Your task to perform on an android device: Toggle the flashlight Image 0: 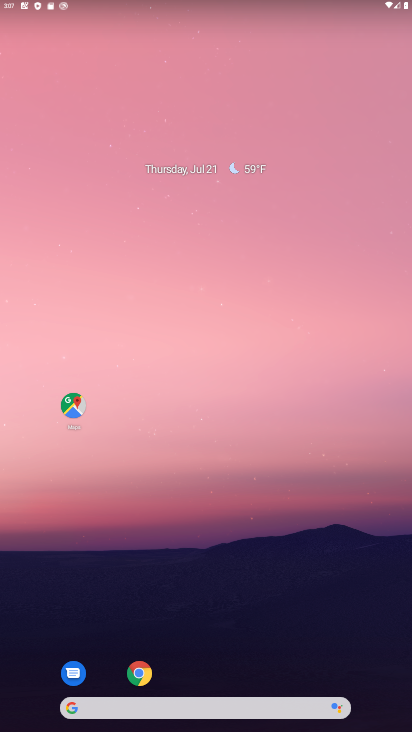
Step 0: drag from (213, 16) to (222, 316)
Your task to perform on an android device: Toggle the flashlight Image 1: 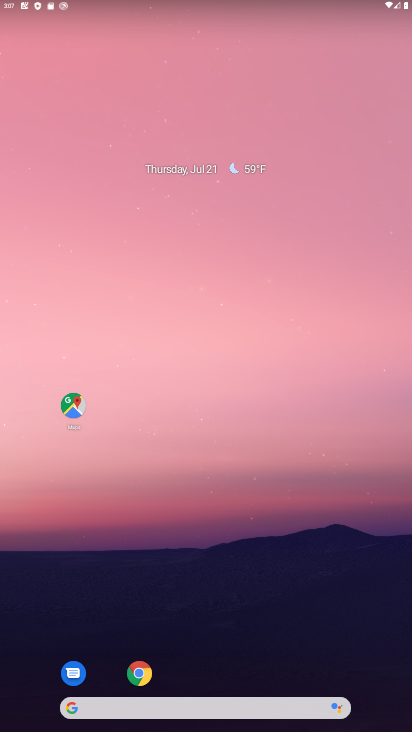
Step 1: drag from (241, 16) to (247, 504)
Your task to perform on an android device: Toggle the flashlight Image 2: 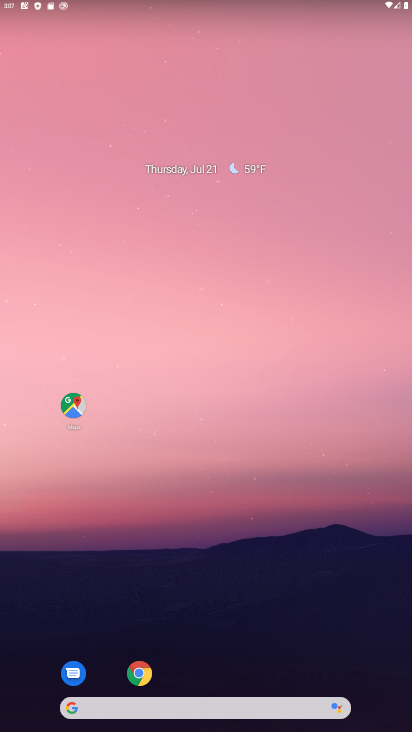
Step 2: drag from (225, 41) to (158, 434)
Your task to perform on an android device: Toggle the flashlight Image 3: 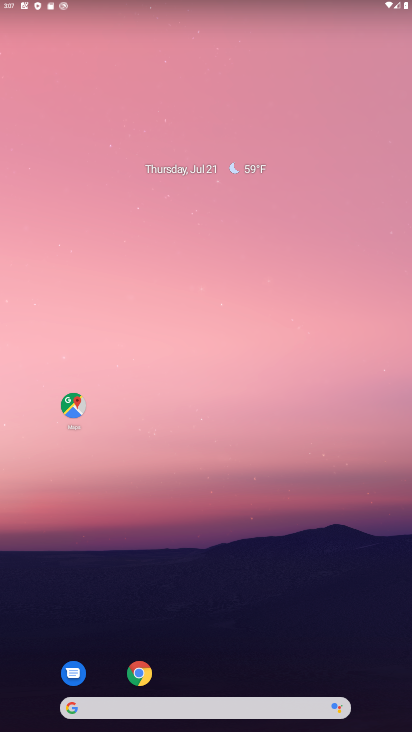
Step 3: drag from (223, 25) to (214, 628)
Your task to perform on an android device: Toggle the flashlight Image 4: 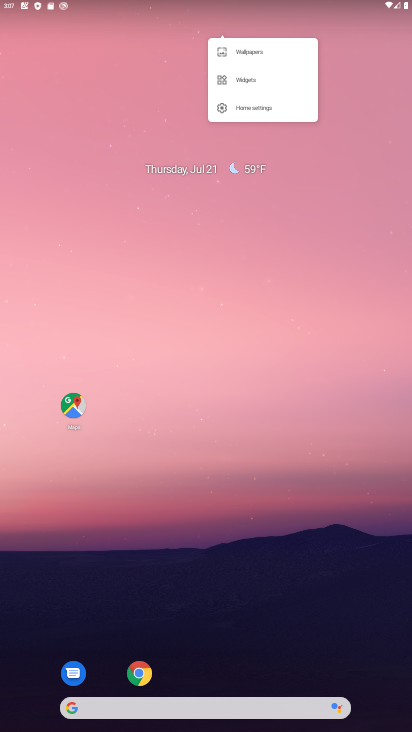
Step 4: click (176, 80)
Your task to perform on an android device: Toggle the flashlight Image 5: 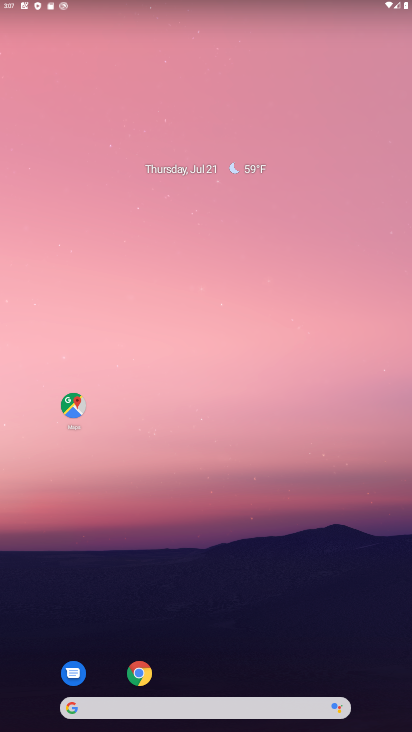
Step 5: drag from (212, 14) to (250, 703)
Your task to perform on an android device: Toggle the flashlight Image 6: 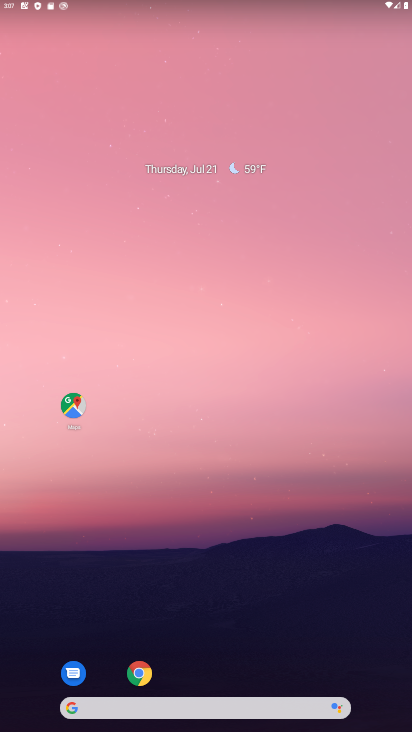
Step 6: drag from (239, 573) to (232, 95)
Your task to perform on an android device: Toggle the flashlight Image 7: 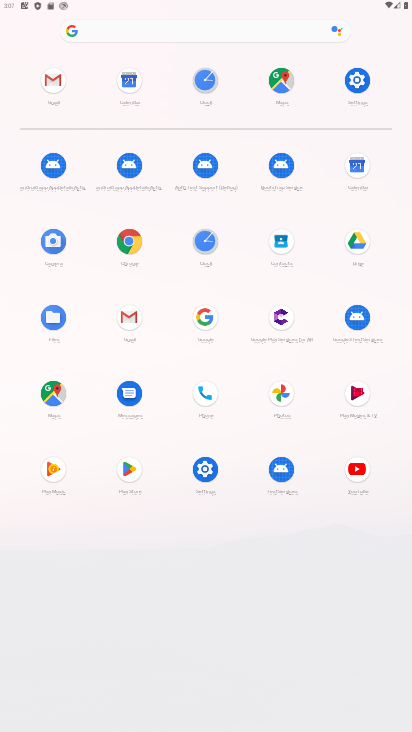
Step 7: drag from (220, 7) to (211, 483)
Your task to perform on an android device: Toggle the flashlight Image 8: 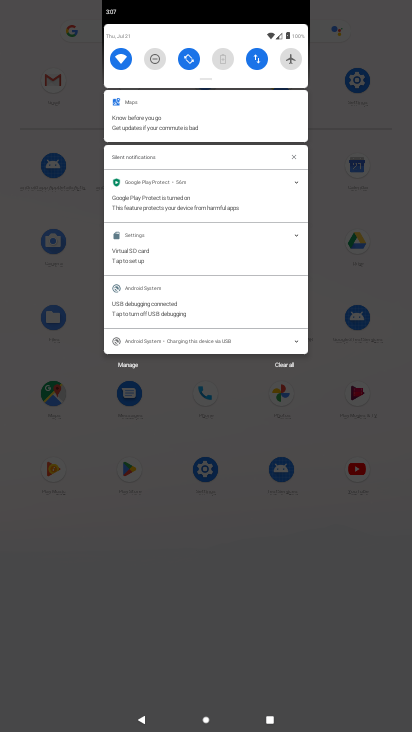
Step 8: drag from (207, 80) to (193, 333)
Your task to perform on an android device: Toggle the flashlight Image 9: 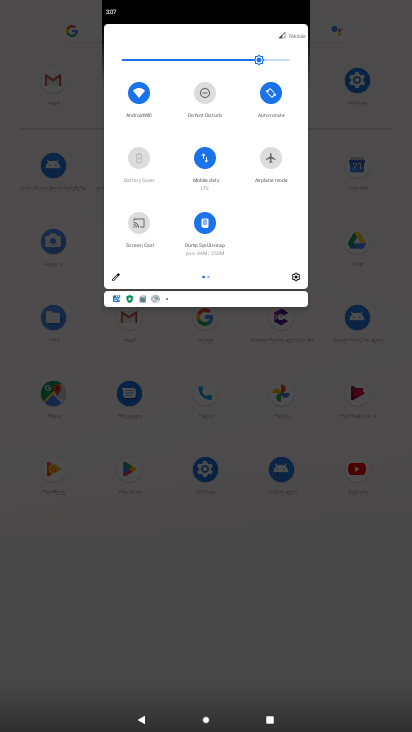
Step 9: click (110, 274)
Your task to perform on an android device: Toggle the flashlight Image 10: 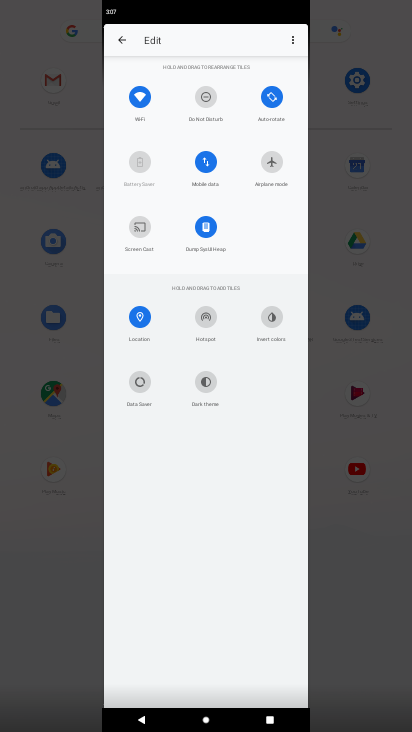
Step 10: task complete